Your task to perform on an android device: Open Reddit.com Image 0: 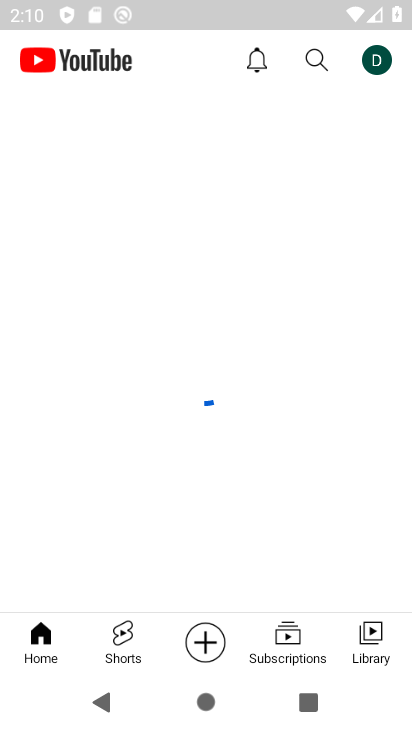
Step 0: press home button
Your task to perform on an android device: Open Reddit.com Image 1: 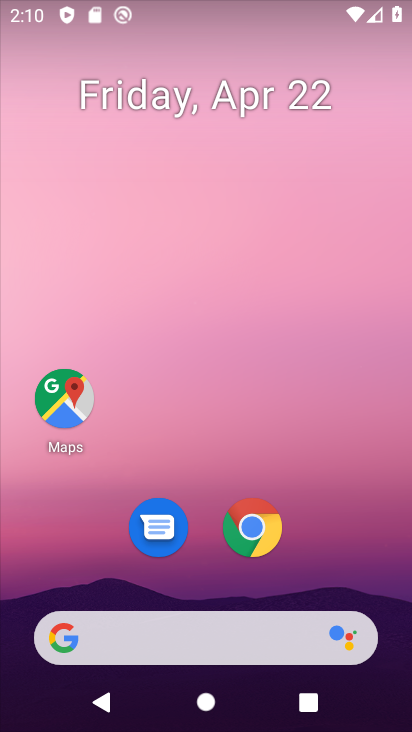
Step 1: drag from (389, 571) to (296, 69)
Your task to perform on an android device: Open Reddit.com Image 2: 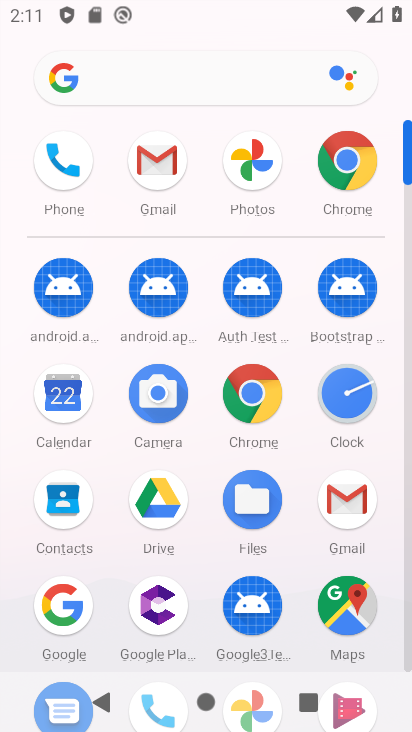
Step 2: click (259, 415)
Your task to perform on an android device: Open Reddit.com Image 3: 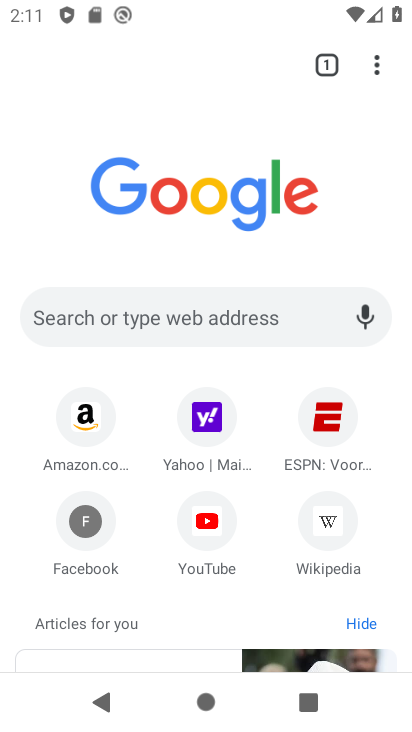
Step 3: click (243, 322)
Your task to perform on an android device: Open Reddit.com Image 4: 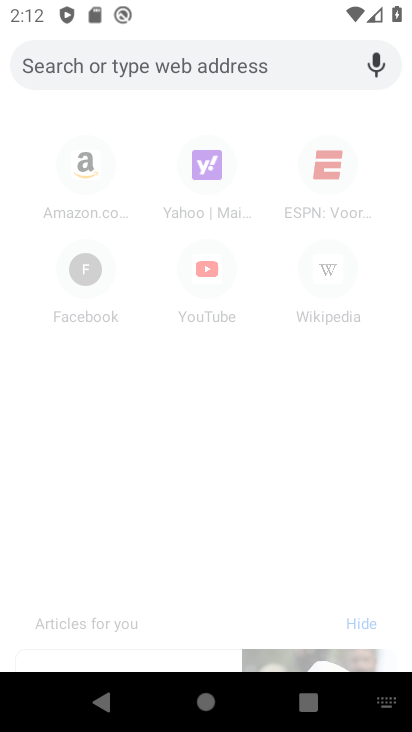
Step 4: type "reddit.com"
Your task to perform on an android device: Open Reddit.com Image 5: 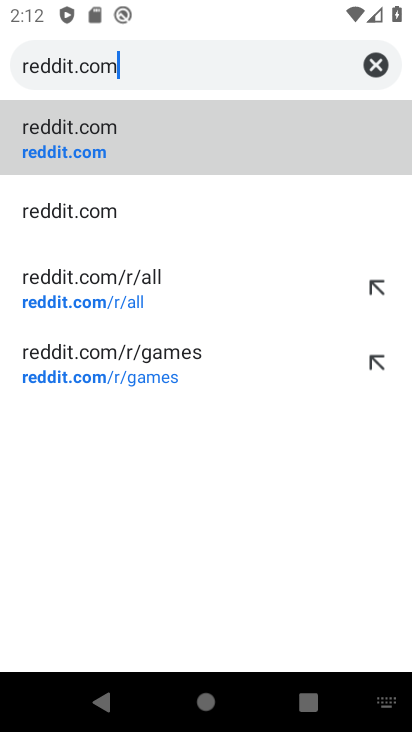
Step 5: click (300, 151)
Your task to perform on an android device: Open Reddit.com Image 6: 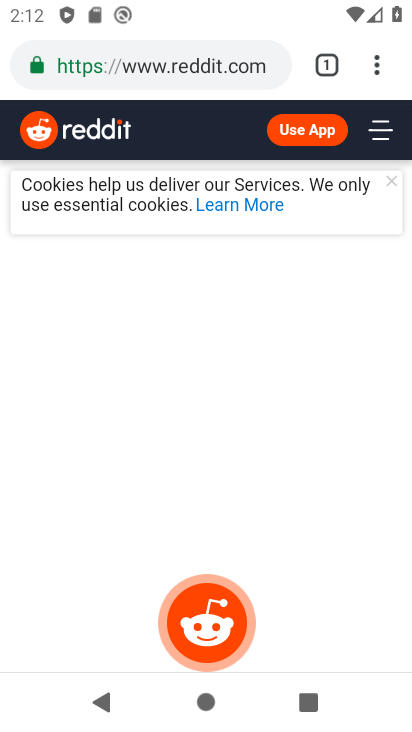
Step 6: task complete